Your task to perform on an android device: Go to internet settings Image 0: 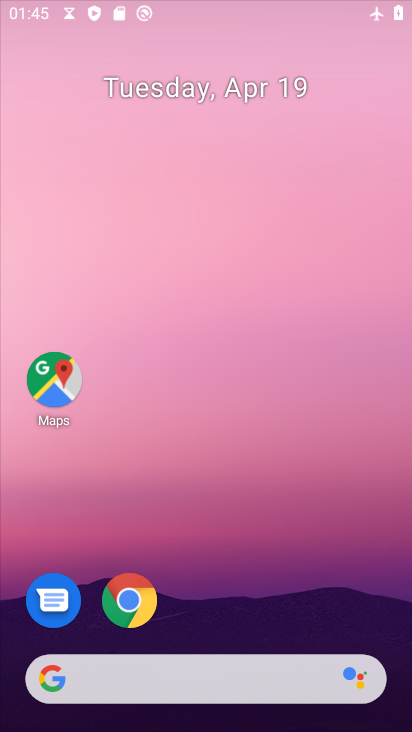
Step 0: drag from (212, 642) to (168, 30)
Your task to perform on an android device: Go to internet settings Image 1: 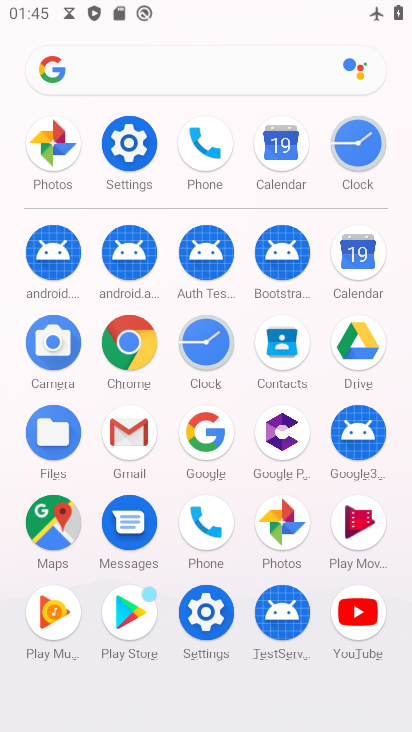
Step 1: click (124, 161)
Your task to perform on an android device: Go to internet settings Image 2: 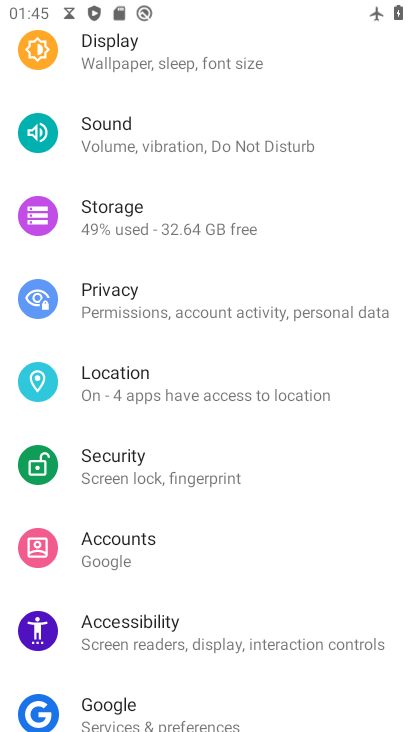
Step 2: drag from (72, 155) to (85, 600)
Your task to perform on an android device: Go to internet settings Image 3: 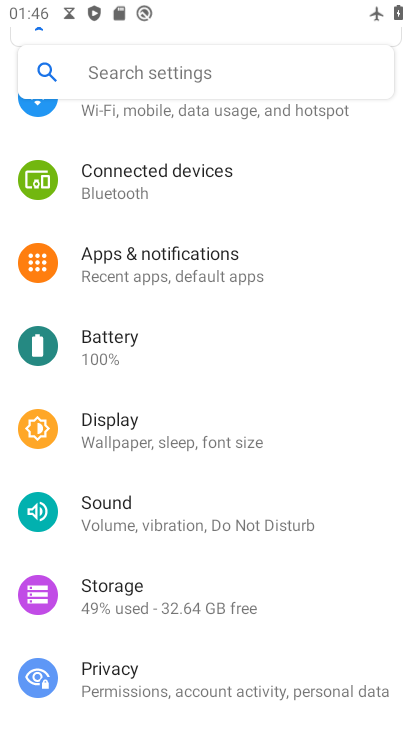
Step 3: click (151, 122)
Your task to perform on an android device: Go to internet settings Image 4: 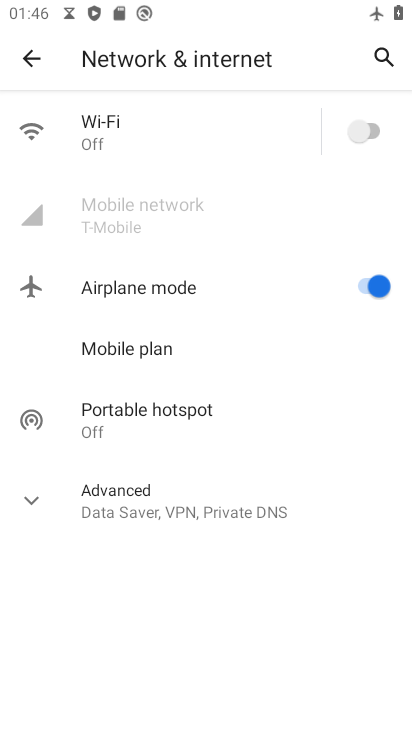
Step 4: click (190, 492)
Your task to perform on an android device: Go to internet settings Image 5: 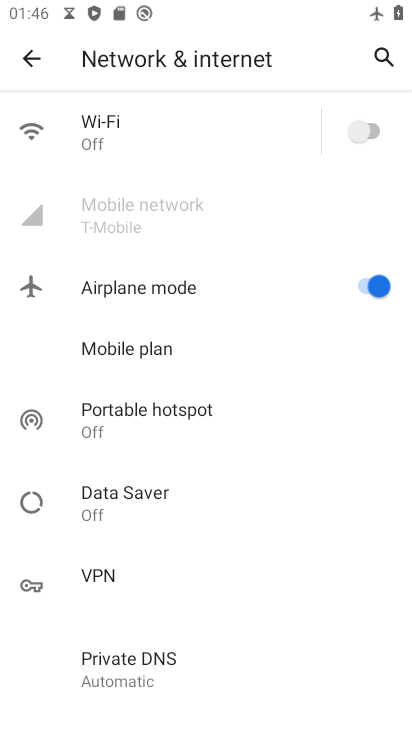
Step 5: task complete